Your task to perform on an android device: Go to battery settings Image 0: 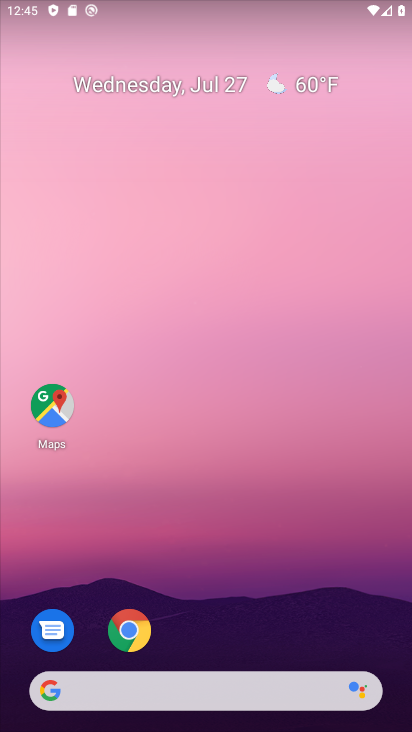
Step 0: press home button
Your task to perform on an android device: Go to battery settings Image 1: 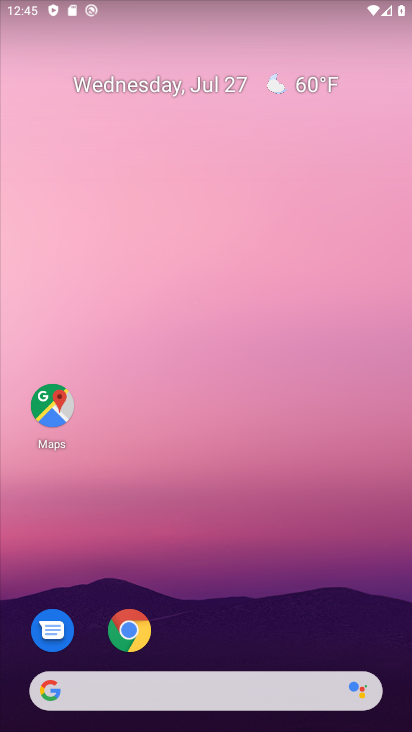
Step 1: drag from (216, 646) to (207, 96)
Your task to perform on an android device: Go to battery settings Image 2: 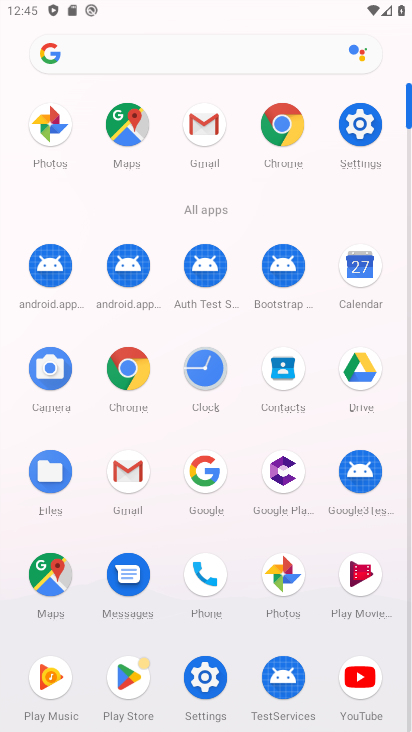
Step 2: click (200, 687)
Your task to perform on an android device: Go to battery settings Image 3: 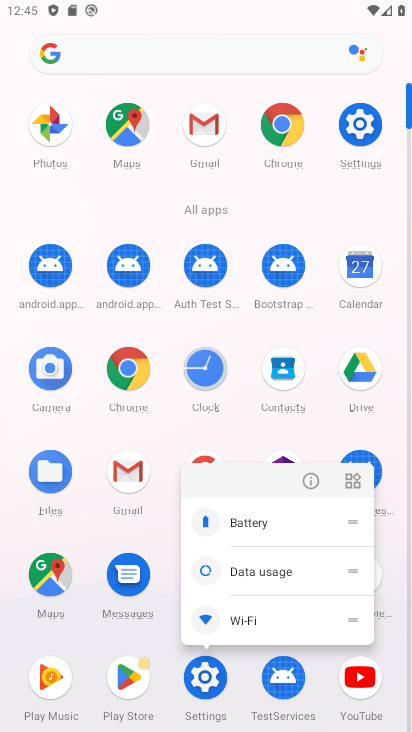
Step 3: click (200, 687)
Your task to perform on an android device: Go to battery settings Image 4: 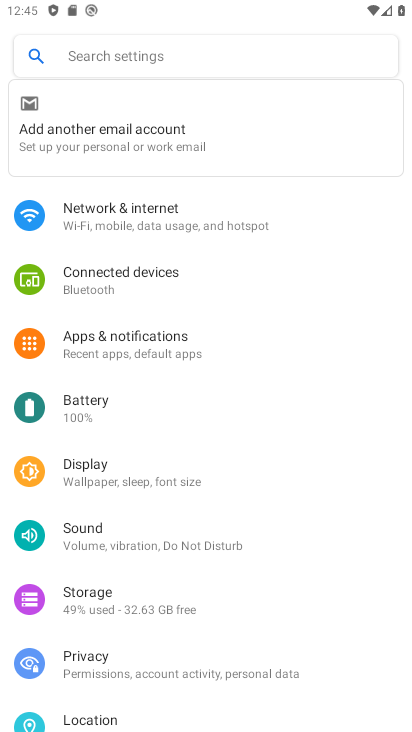
Step 4: click (85, 413)
Your task to perform on an android device: Go to battery settings Image 5: 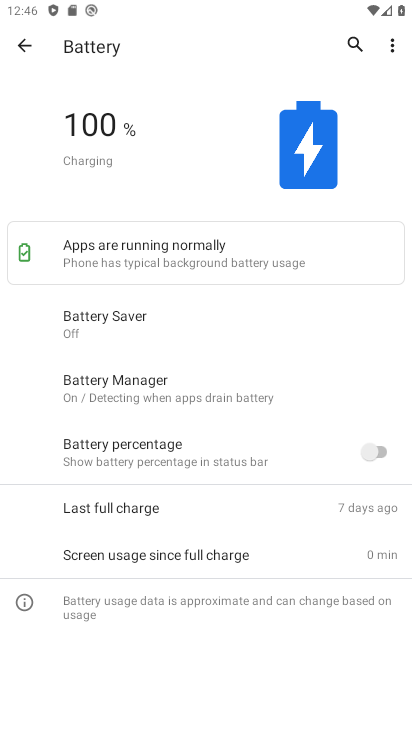
Step 5: task complete